Your task to perform on an android device: turn notification dots off Image 0: 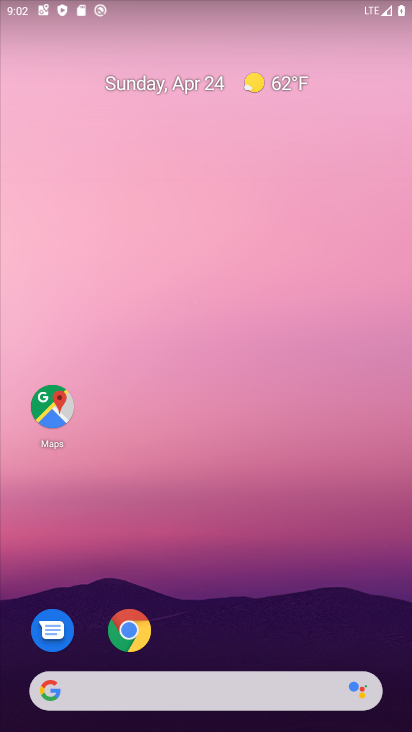
Step 0: drag from (283, 451) to (223, 3)
Your task to perform on an android device: turn notification dots off Image 1: 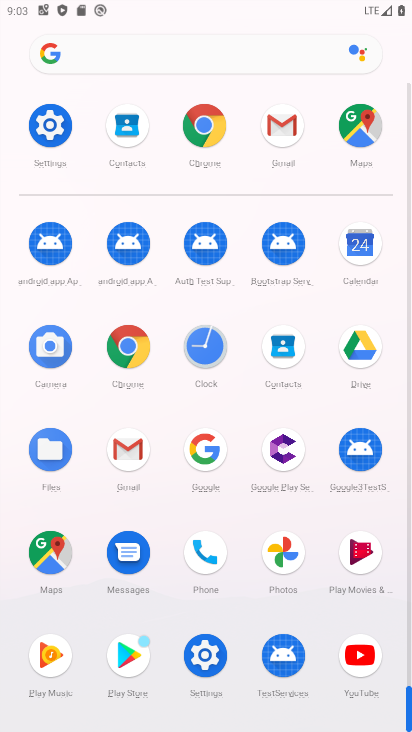
Step 1: click (208, 653)
Your task to perform on an android device: turn notification dots off Image 2: 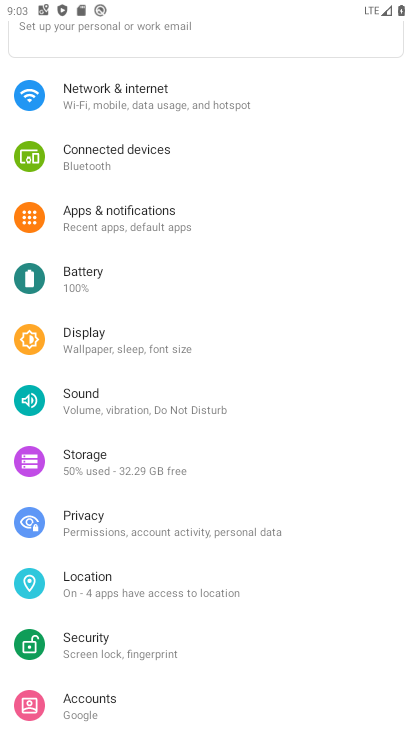
Step 2: click (114, 212)
Your task to perform on an android device: turn notification dots off Image 3: 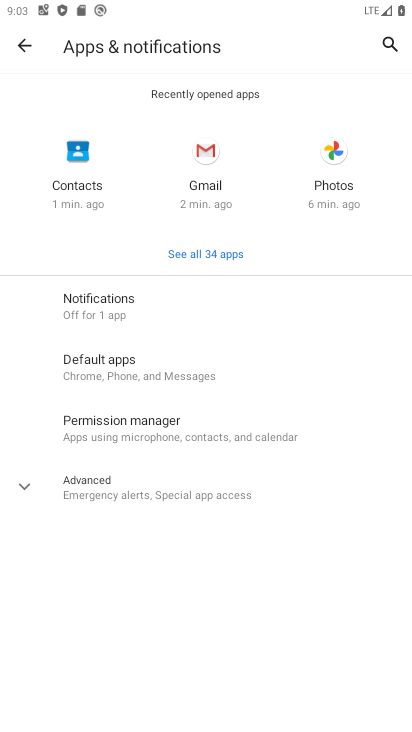
Step 3: click (116, 311)
Your task to perform on an android device: turn notification dots off Image 4: 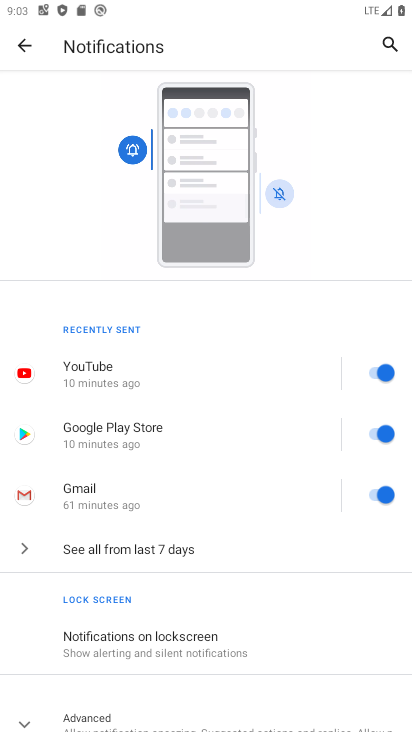
Step 4: drag from (205, 504) to (235, 118)
Your task to perform on an android device: turn notification dots off Image 5: 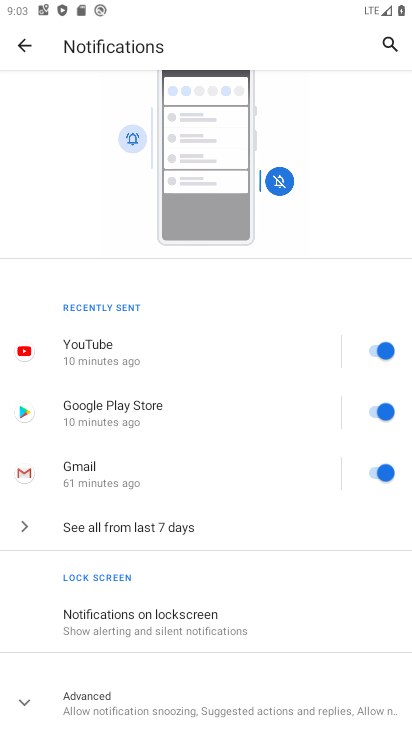
Step 5: click (106, 698)
Your task to perform on an android device: turn notification dots off Image 6: 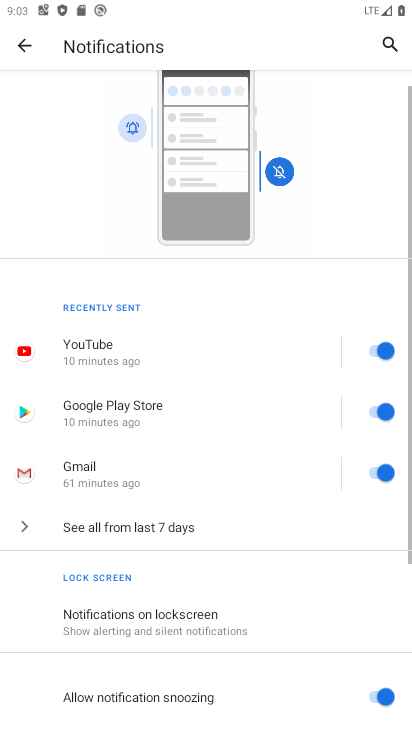
Step 6: drag from (262, 559) to (277, 252)
Your task to perform on an android device: turn notification dots off Image 7: 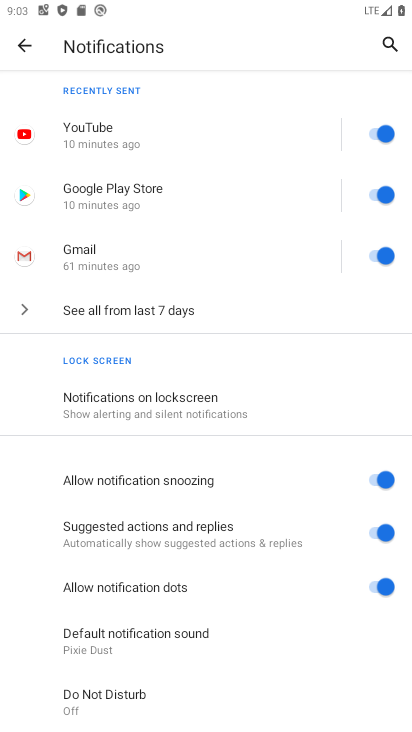
Step 7: click (384, 586)
Your task to perform on an android device: turn notification dots off Image 8: 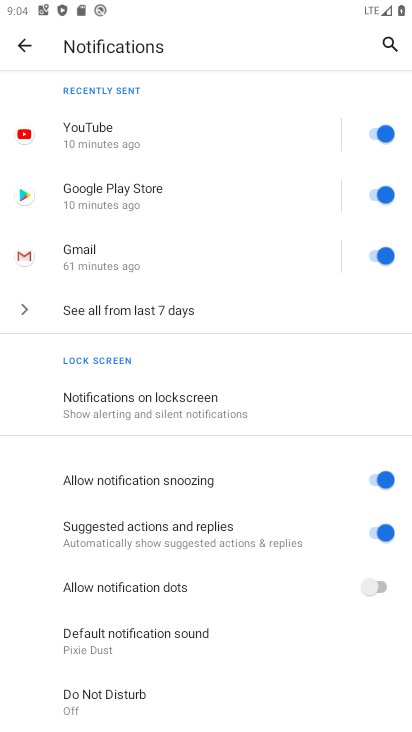
Step 8: task complete